Your task to perform on an android device: snooze an email in the gmail app Image 0: 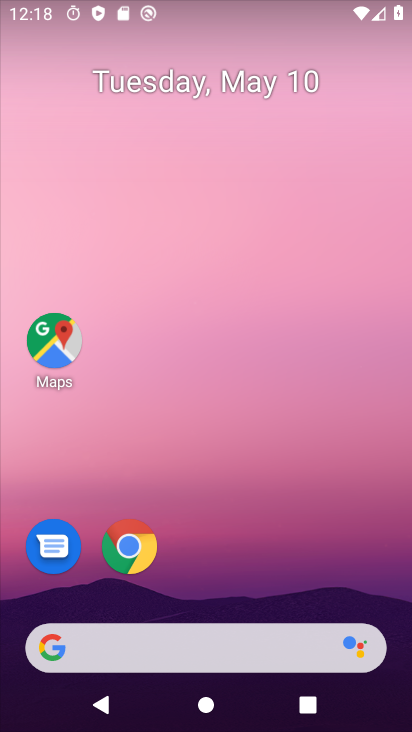
Step 0: drag from (226, 551) to (233, 42)
Your task to perform on an android device: snooze an email in the gmail app Image 1: 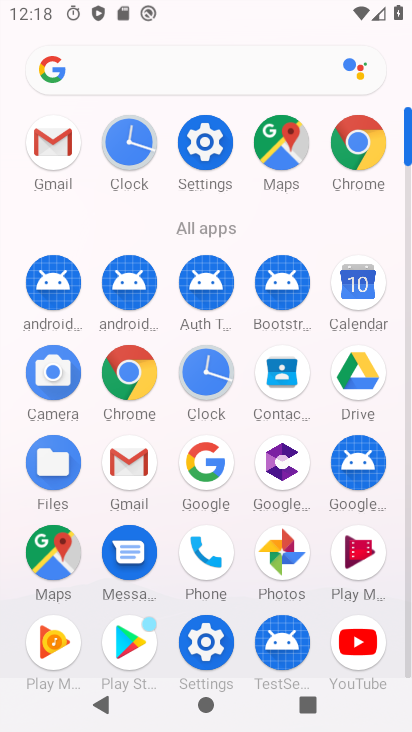
Step 1: click (38, 147)
Your task to perform on an android device: snooze an email in the gmail app Image 2: 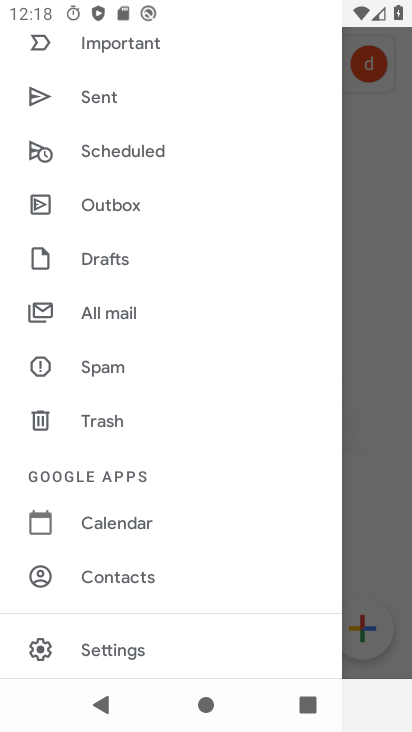
Step 2: task complete